Your task to perform on an android device: toggle airplane mode Image 0: 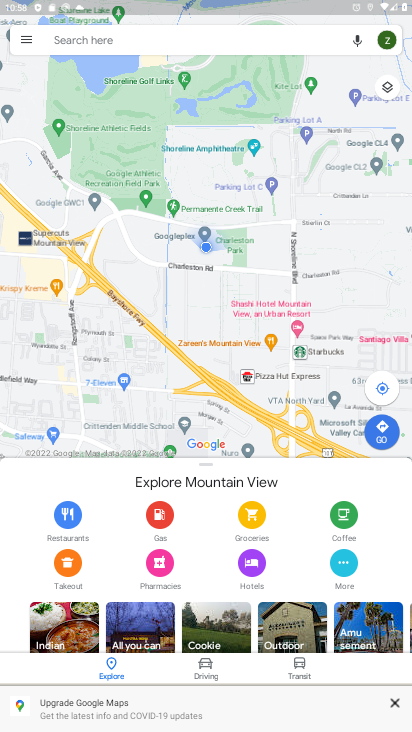
Step 0: press home button
Your task to perform on an android device: toggle airplane mode Image 1: 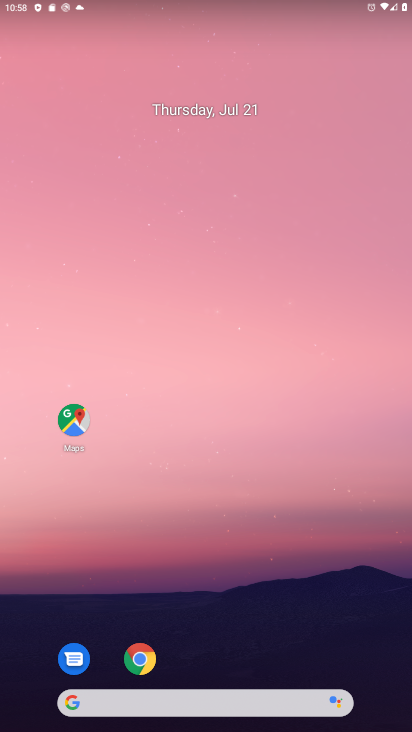
Step 1: drag from (230, 661) to (259, 154)
Your task to perform on an android device: toggle airplane mode Image 2: 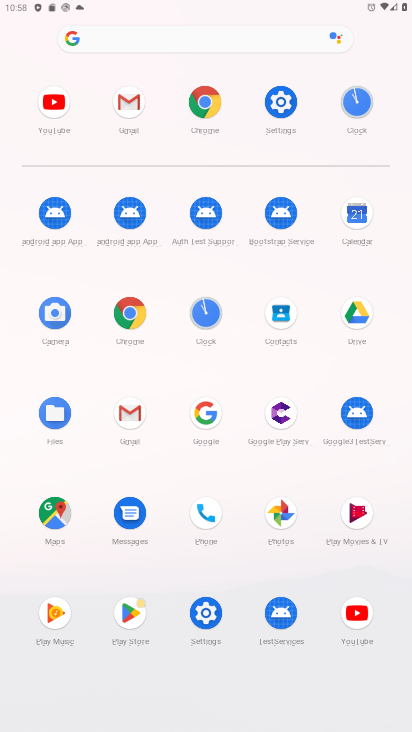
Step 2: click (193, 614)
Your task to perform on an android device: toggle airplane mode Image 3: 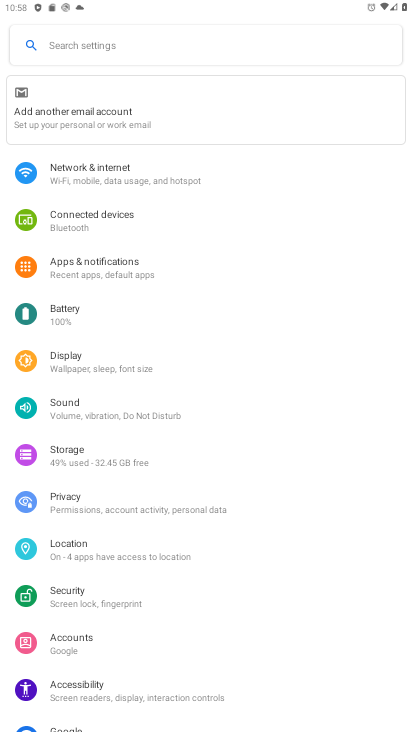
Step 3: click (138, 191)
Your task to perform on an android device: toggle airplane mode Image 4: 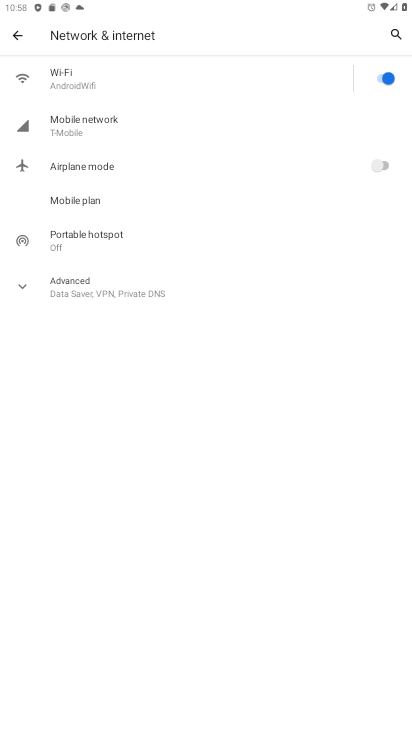
Step 4: click (363, 176)
Your task to perform on an android device: toggle airplane mode Image 5: 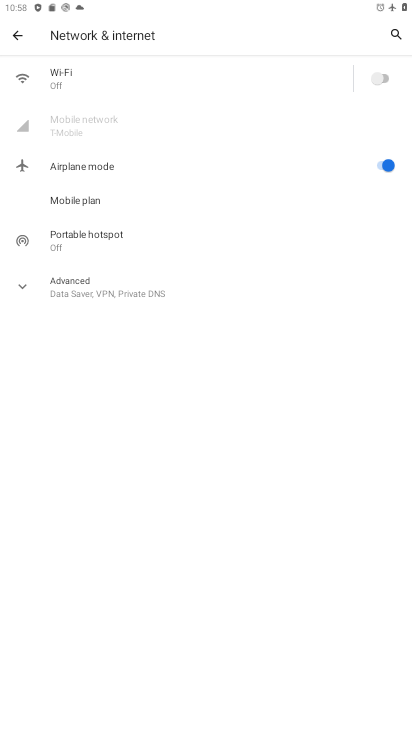
Step 5: task complete